Your task to perform on an android device: Toggle the flashlight Image 0: 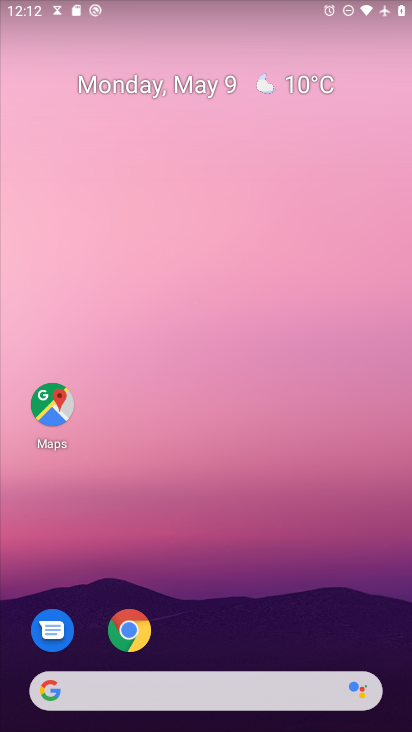
Step 0: drag from (231, 7) to (309, 451)
Your task to perform on an android device: Toggle the flashlight Image 1: 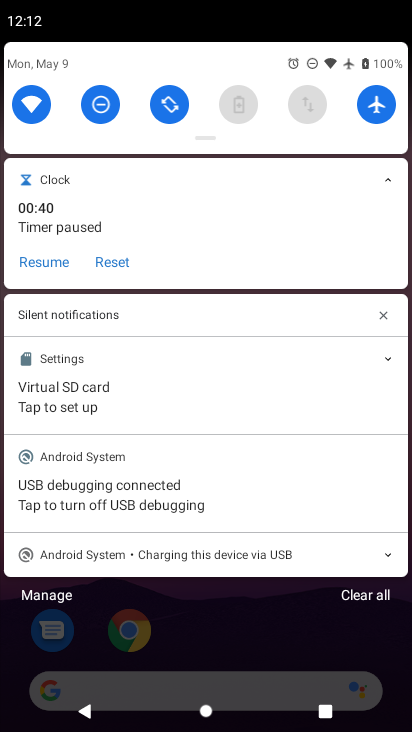
Step 1: task complete